Your task to perform on an android device: Open Yahoo.com Image 0: 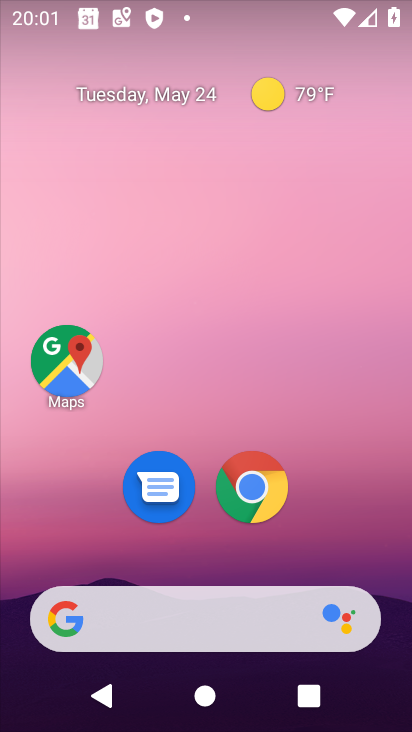
Step 0: press home button
Your task to perform on an android device: Open Yahoo.com Image 1: 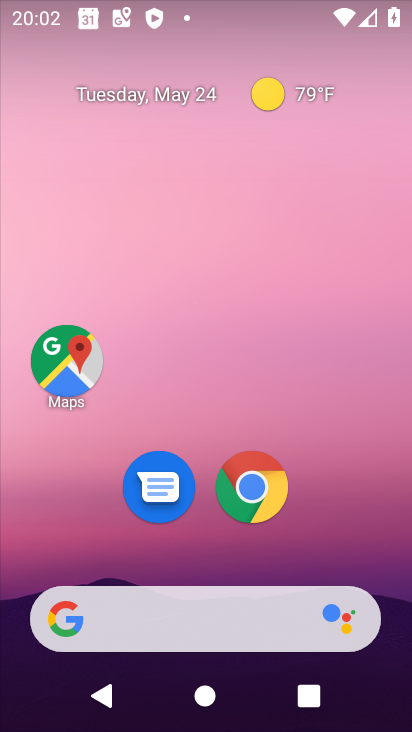
Step 1: click (268, 475)
Your task to perform on an android device: Open Yahoo.com Image 2: 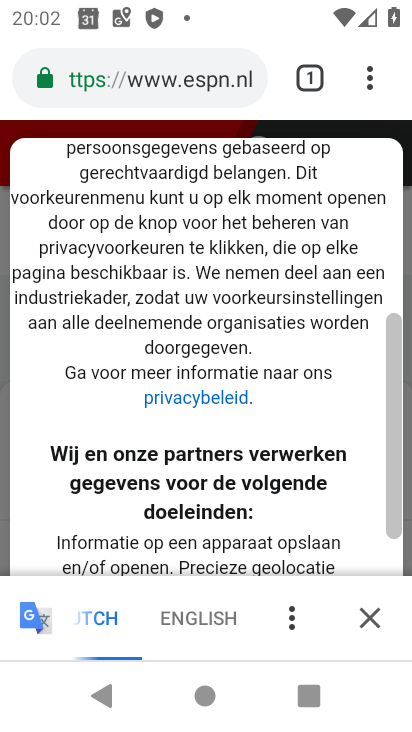
Step 2: click (314, 82)
Your task to perform on an android device: Open Yahoo.com Image 3: 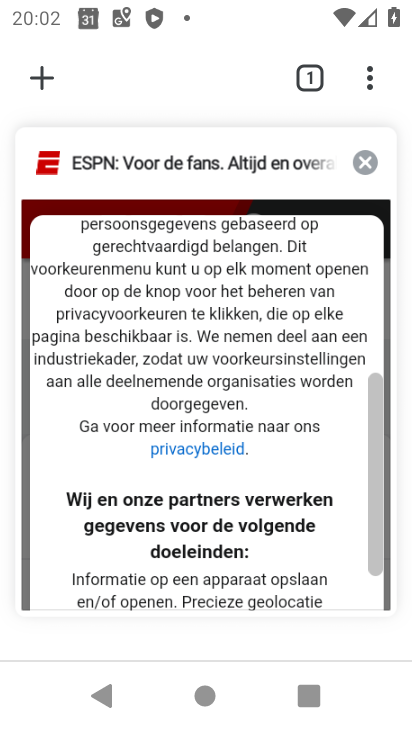
Step 3: click (36, 78)
Your task to perform on an android device: Open Yahoo.com Image 4: 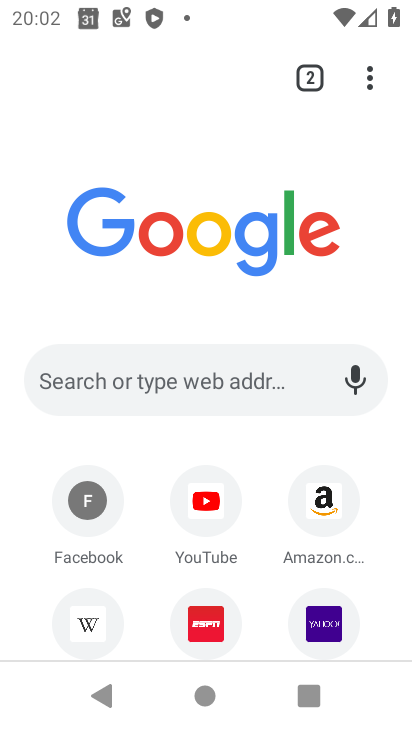
Step 4: click (326, 630)
Your task to perform on an android device: Open Yahoo.com Image 5: 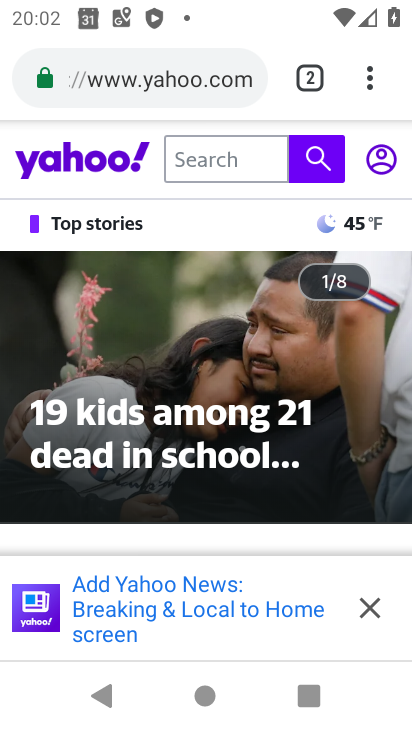
Step 5: task complete